Your task to perform on an android device: What's the weather going to be tomorrow? Image 0: 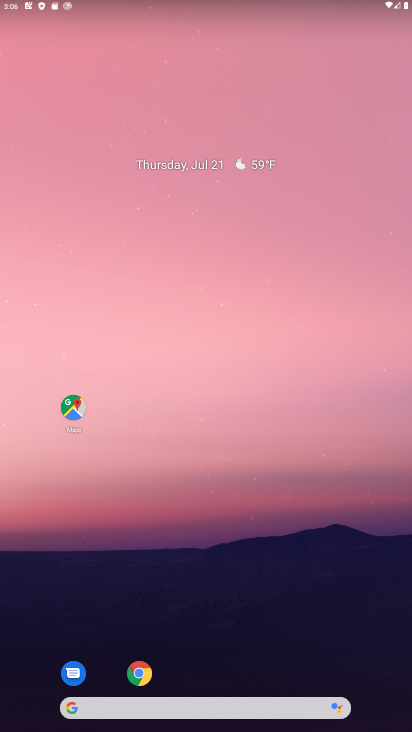
Step 0: click (147, 667)
Your task to perform on an android device: What's the weather going to be tomorrow? Image 1: 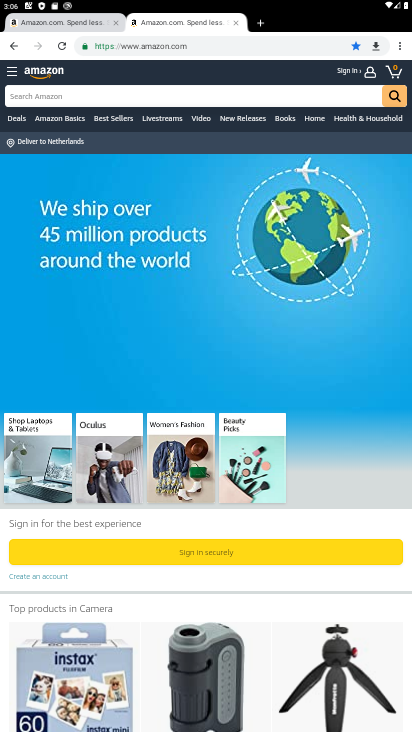
Step 1: click (157, 44)
Your task to perform on an android device: What's the weather going to be tomorrow? Image 2: 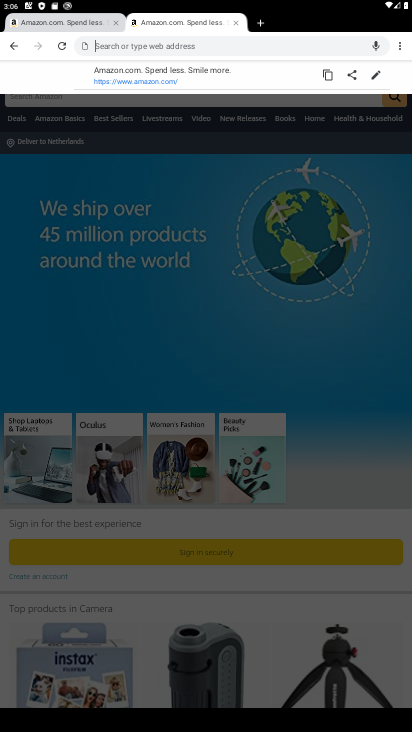
Step 2: type "What's the weather going to be tomorrow?"
Your task to perform on an android device: What's the weather going to be tomorrow? Image 3: 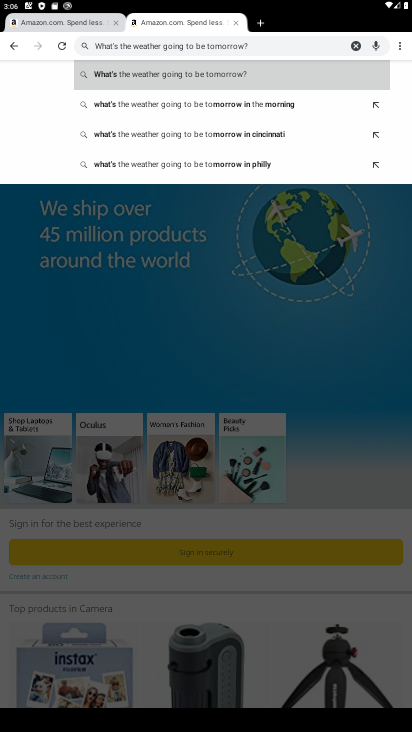
Step 3: click (212, 78)
Your task to perform on an android device: What's the weather going to be tomorrow? Image 4: 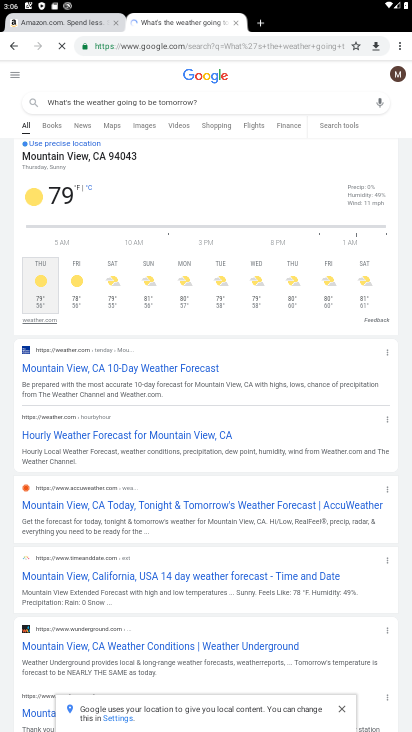
Step 4: task complete